Your task to perform on an android device: open app "Messenger Lite" (install if not already installed) Image 0: 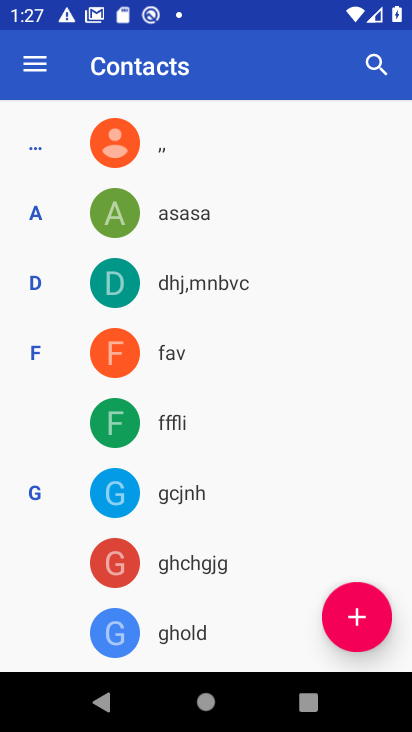
Step 0: press home button
Your task to perform on an android device: open app "Messenger Lite" (install if not already installed) Image 1: 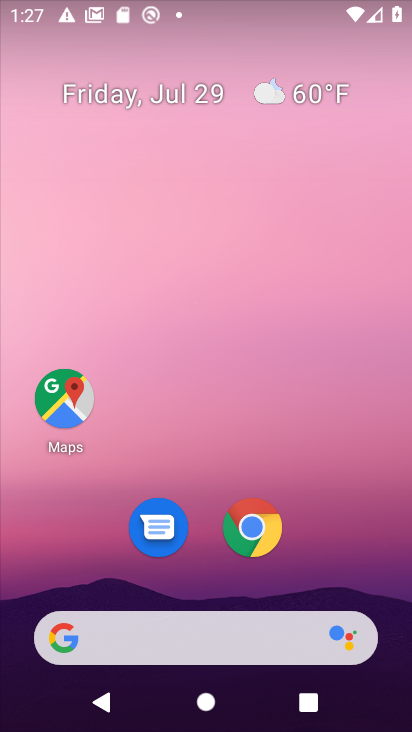
Step 1: drag from (236, 719) to (236, 9)
Your task to perform on an android device: open app "Messenger Lite" (install if not already installed) Image 2: 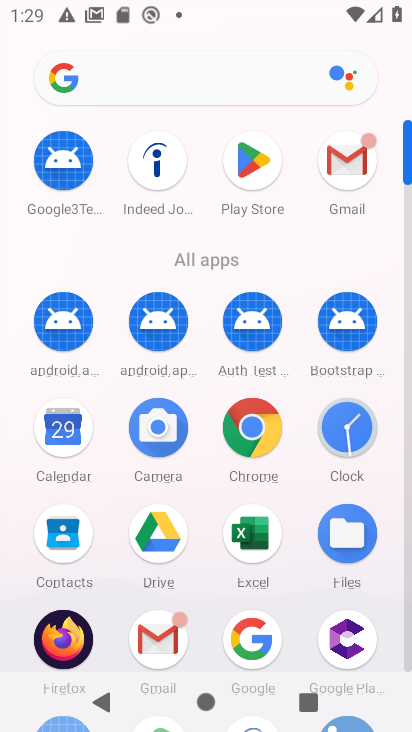
Step 2: click (253, 155)
Your task to perform on an android device: open app "Messenger Lite" (install if not already installed) Image 3: 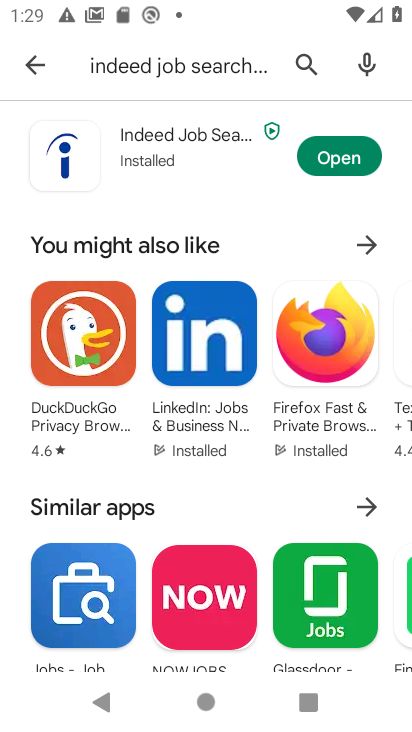
Step 3: click (305, 61)
Your task to perform on an android device: open app "Messenger Lite" (install if not already installed) Image 4: 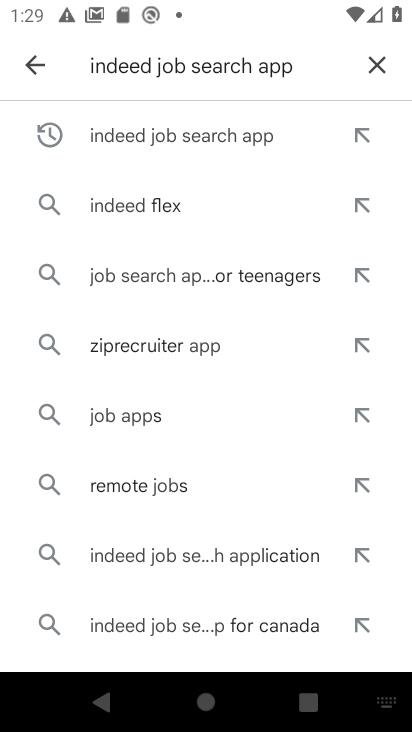
Step 4: click (377, 57)
Your task to perform on an android device: open app "Messenger Lite" (install if not already installed) Image 5: 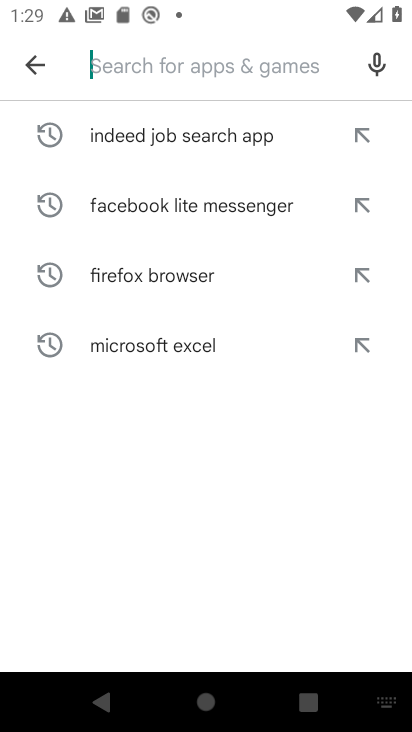
Step 5: type "Messenger Lite"
Your task to perform on an android device: open app "Messenger Lite" (install if not already installed) Image 6: 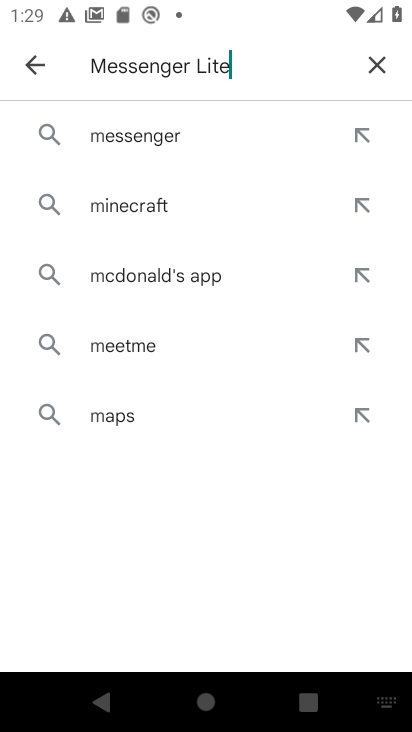
Step 6: type ""
Your task to perform on an android device: open app "Messenger Lite" (install if not already installed) Image 7: 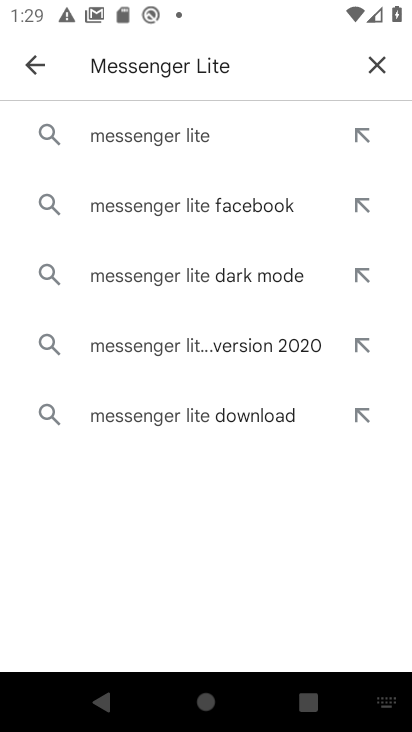
Step 7: click (177, 134)
Your task to perform on an android device: open app "Messenger Lite" (install if not already installed) Image 8: 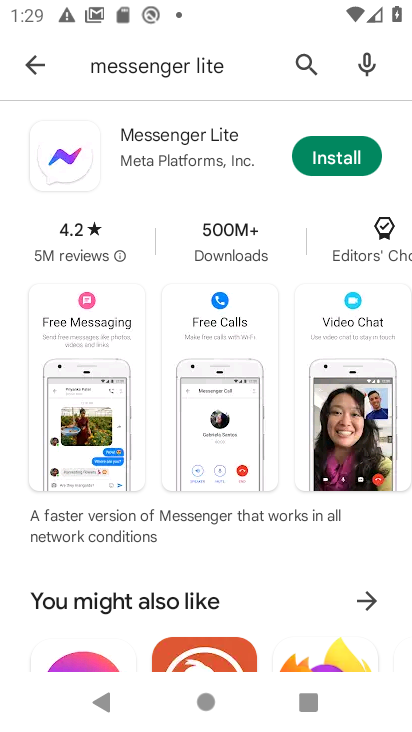
Step 8: click (348, 148)
Your task to perform on an android device: open app "Messenger Lite" (install if not already installed) Image 9: 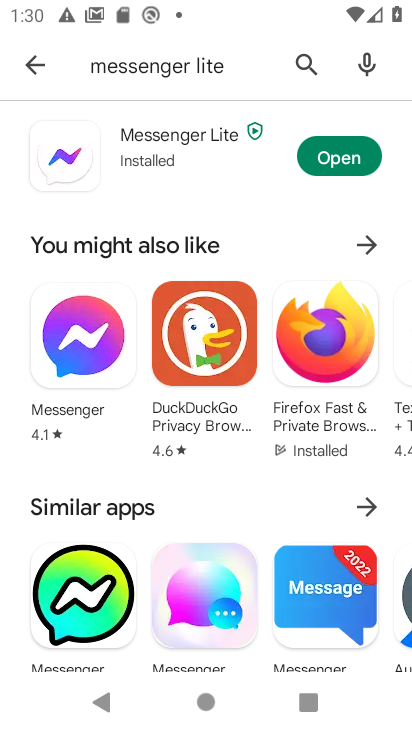
Step 9: task complete